Your task to perform on an android device: Open calendar and show me the third week of next month Image 0: 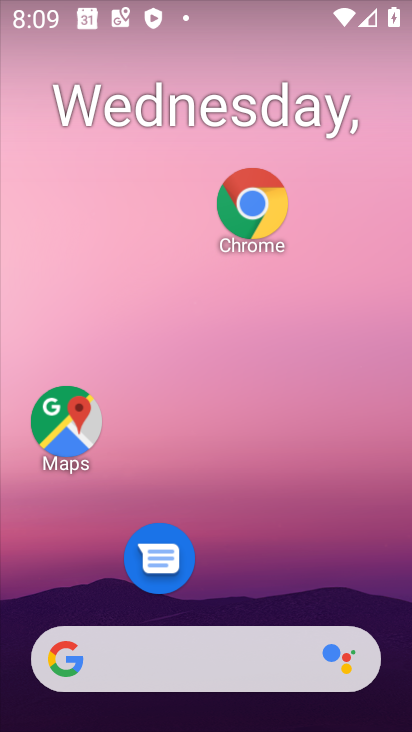
Step 0: press home button
Your task to perform on an android device: Open calendar and show me the third week of next month Image 1: 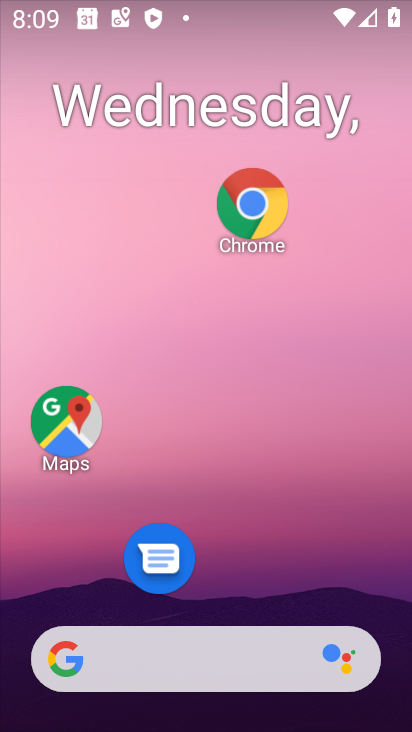
Step 1: drag from (238, 455) to (245, 16)
Your task to perform on an android device: Open calendar and show me the third week of next month Image 2: 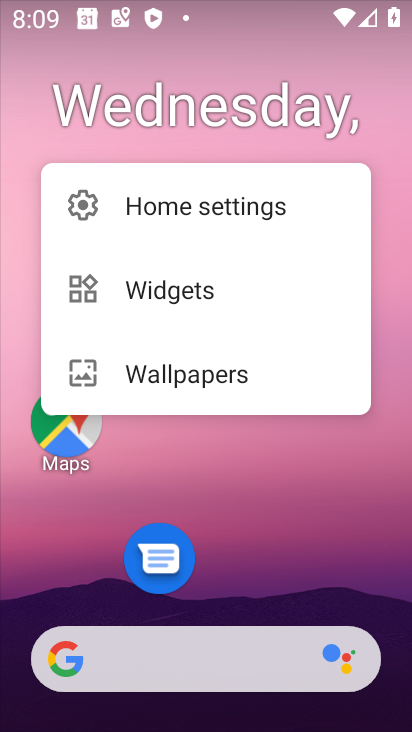
Step 2: click (265, 539)
Your task to perform on an android device: Open calendar and show me the third week of next month Image 3: 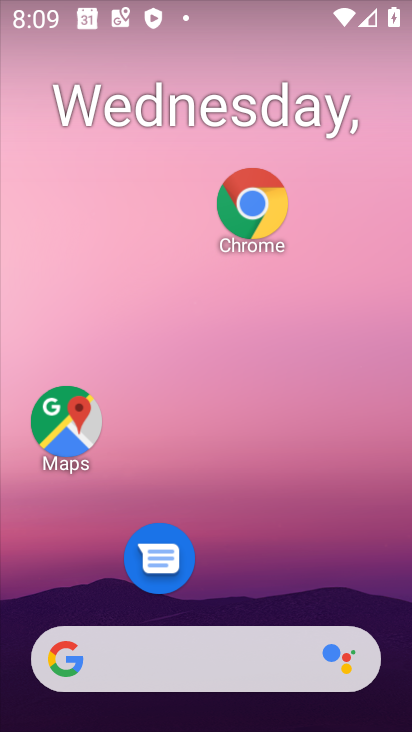
Step 3: drag from (256, 583) to (279, 152)
Your task to perform on an android device: Open calendar and show me the third week of next month Image 4: 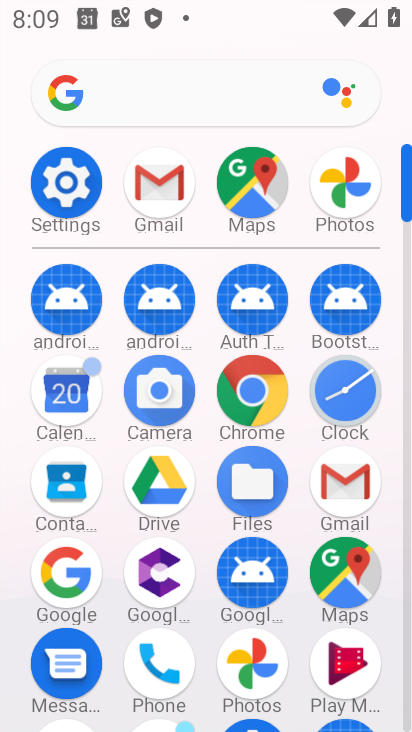
Step 4: click (61, 388)
Your task to perform on an android device: Open calendar and show me the third week of next month Image 5: 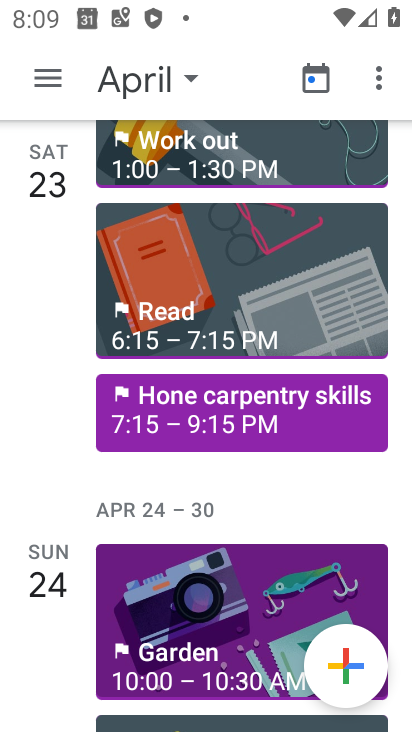
Step 5: click (59, 74)
Your task to perform on an android device: Open calendar and show me the third week of next month Image 6: 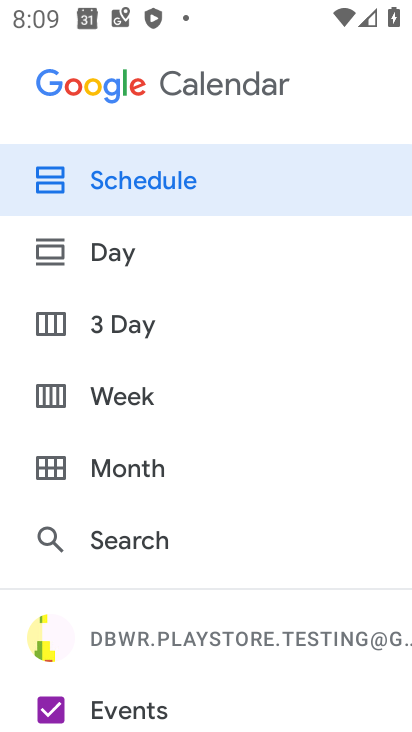
Step 6: click (109, 400)
Your task to perform on an android device: Open calendar and show me the third week of next month Image 7: 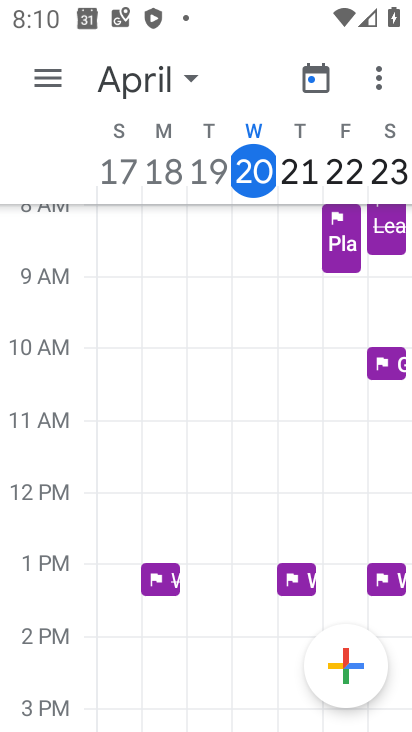
Step 7: drag from (397, 163) to (88, 151)
Your task to perform on an android device: Open calendar and show me the third week of next month Image 8: 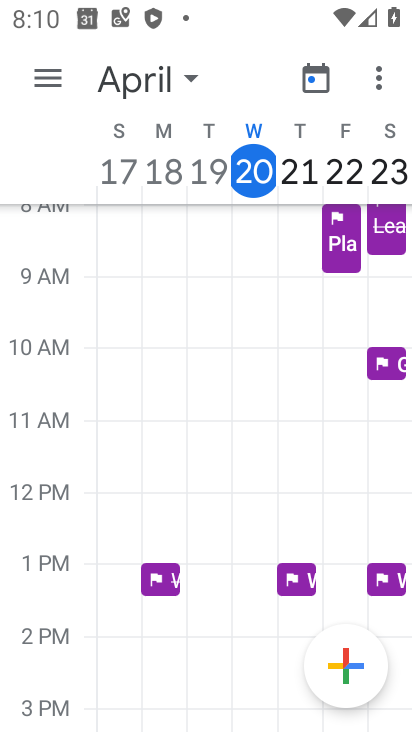
Step 8: click (40, 166)
Your task to perform on an android device: Open calendar and show me the third week of next month Image 9: 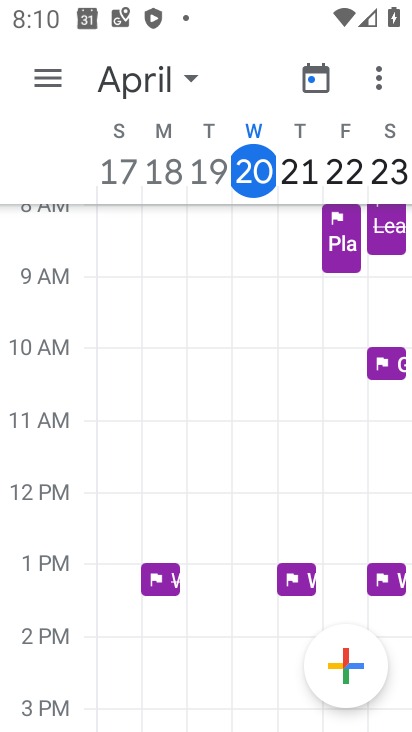
Step 9: drag from (395, 172) to (3, 175)
Your task to perform on an android device: Open calendar and show me the third week of next month Image 10: 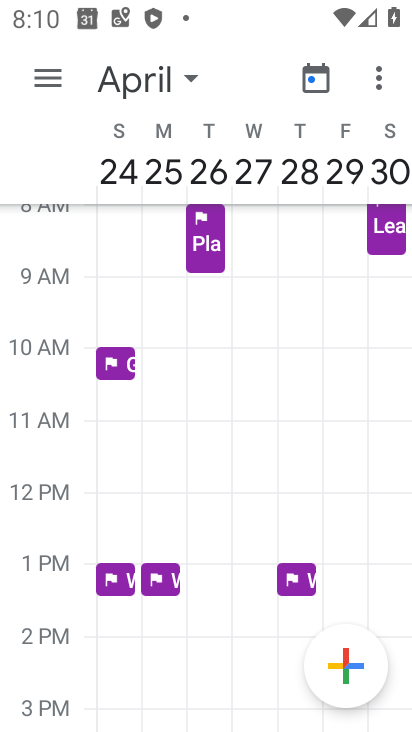
Step 10: drag from (397, 171) to (43, 174)
Your task to perform on an android device: Open calendar and show me the third week of next month Image 11: 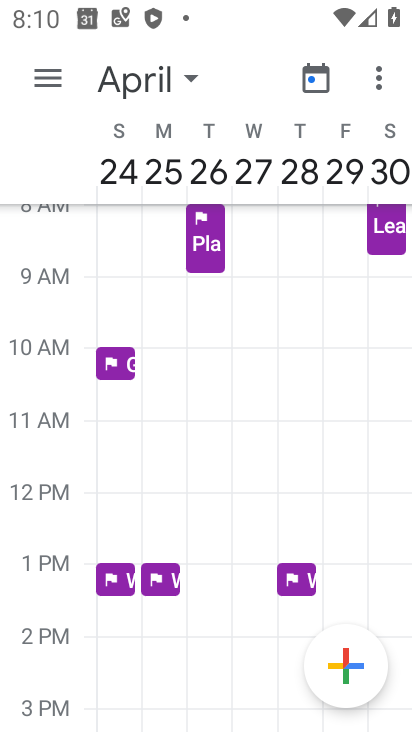
Step 11: drag from (386, 168) to (7, 192)
Your task to perform on an android device: Open calendar and show me the third week of next month Image 12: 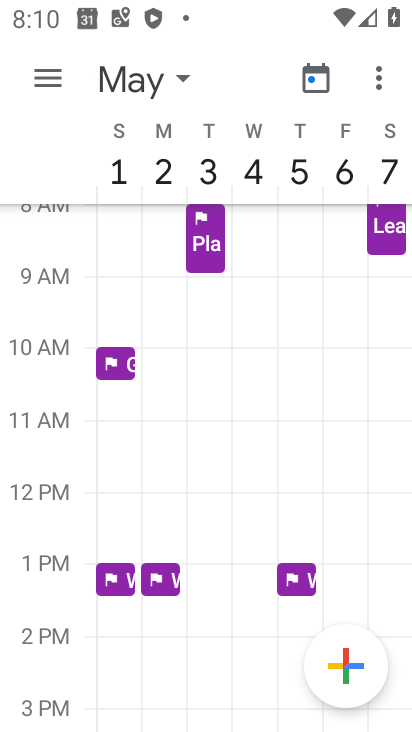
Step 12: drag from (379, 167) to (16, 175)
Your task to perform on an android device: Open calendar and show me the third week of next month Image 13: 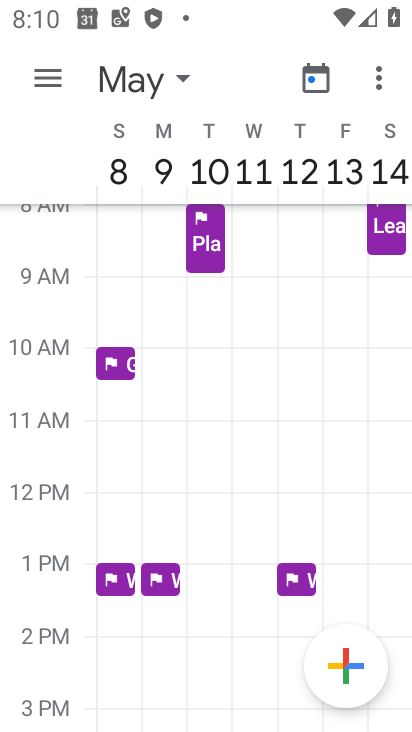
Step 13: drag from (394, 170) to (30, 167)
Your task to perform on an android device: Open calendar and show me the third week of next month Image 14: 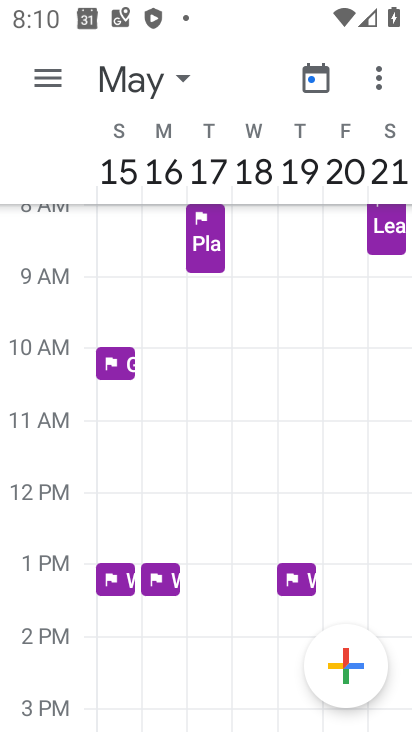
Step 14: click (120, 166)
Your task to perform on an android device: Open calendar and show me the third week of next month Image 15: 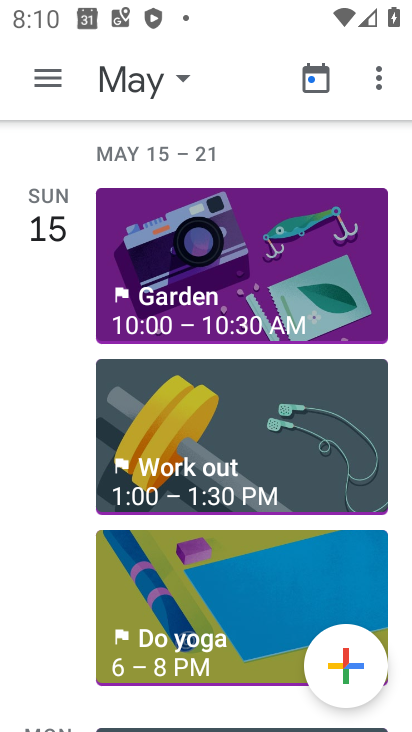
Step 15: task complete